Your task to perform on an android device: Go to Android settings Image 0: 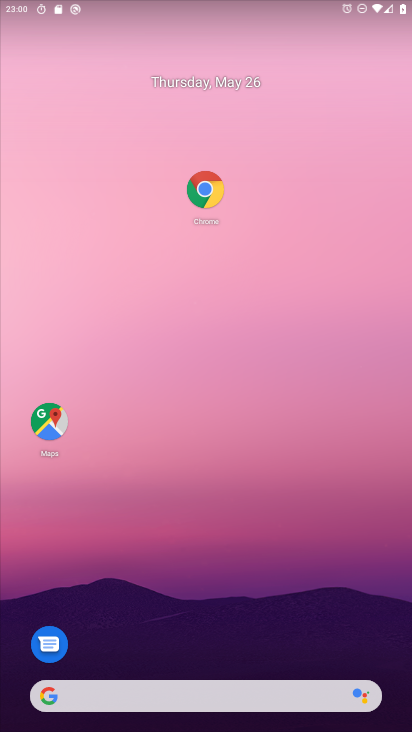
Step 0: drag from (114, 618) to (217, 217)
Your task to perform on an android device: Go to Android settings Image 1: 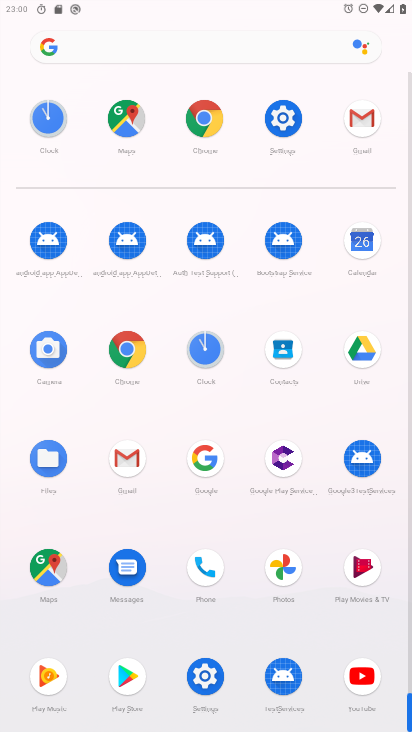
Step 1: click (197, 691)
Your task to perform on an android device: Go to Android settings Image 2: 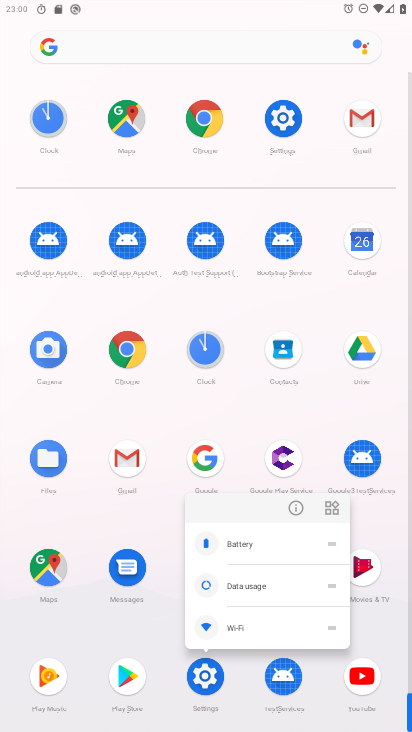
Step 2: click (293, 500)
Your task to perform on an android device: Go to Android settings Image 3: 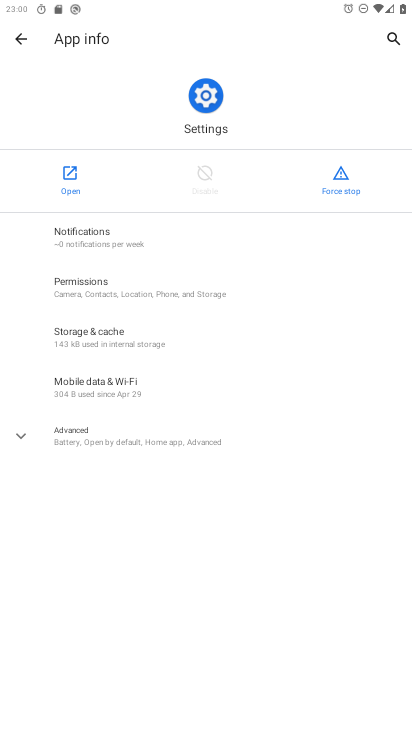
Step 3: click (69, 187)
Your task to perform on an android device: Go to Android settings Image 4: 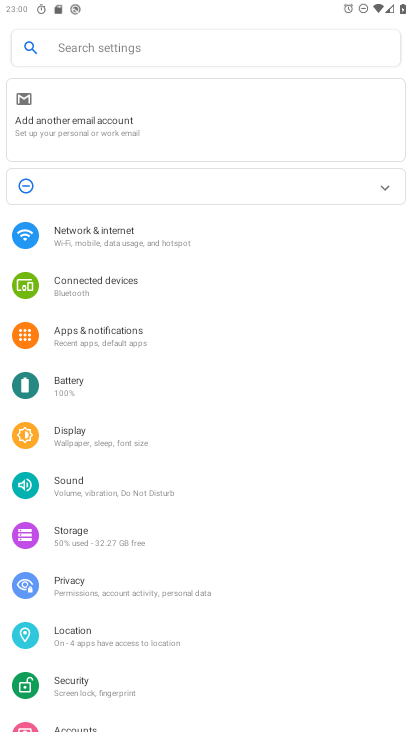
Step 4: drag from (151, 581) to (160, 482)
Your task to perform on an android device: Go to Android settings Image 5: 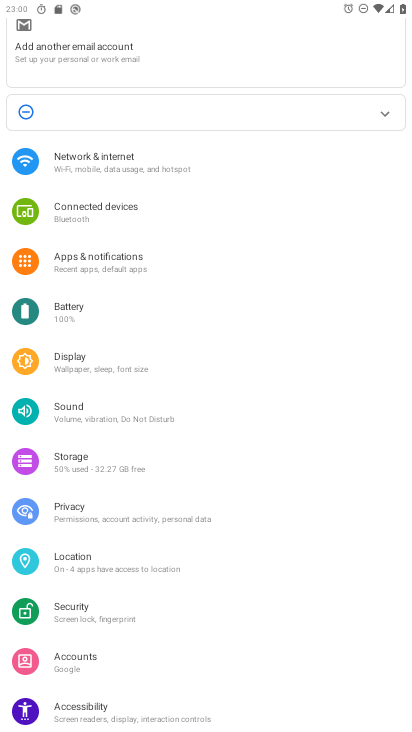
Step 5: drag from (131, 620) to (155, 448)
Your task to perform on an android device: Go to Android settings Image 6: 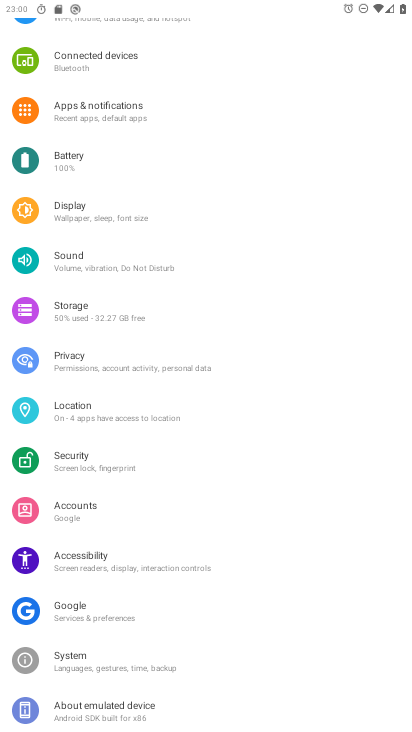
Step 6: click (113, 704)
Your task to perform on an android device: Go to Android settings Image 7: 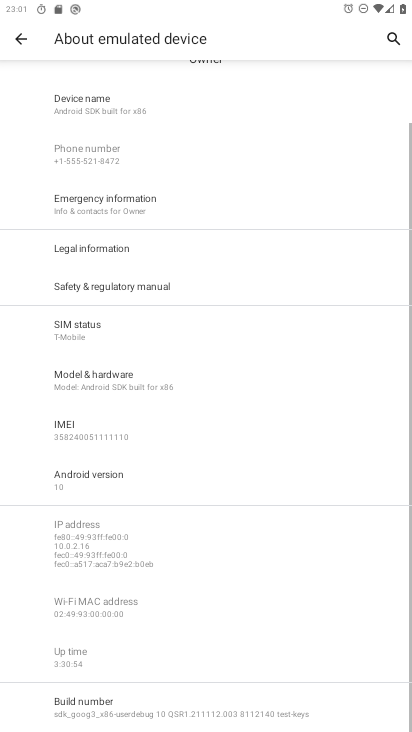
Step 7: click (125, 479)
Your task to perform on an android device: Go to Android settings Image 8: 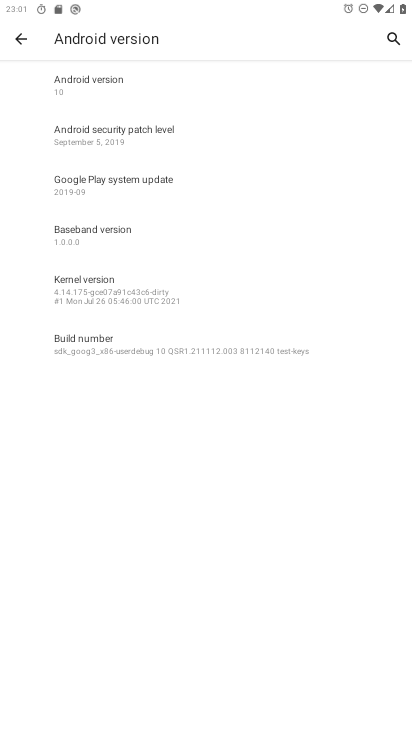
Step 8: task complete